Your task to perform on an android device: Go to sound settings Image 0: 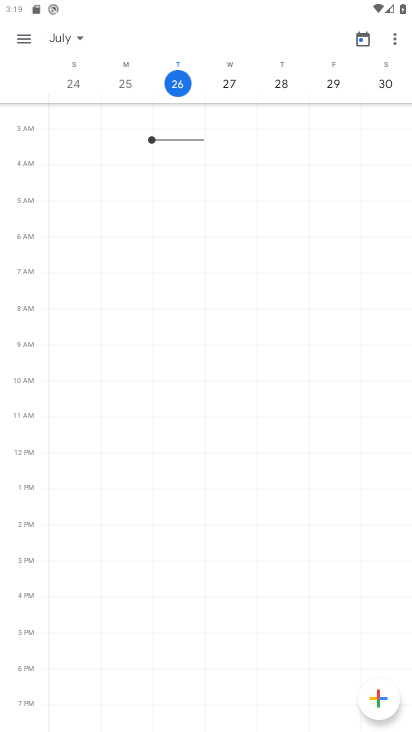
Step 0: press home button
Your task to perform on an android device: Go to sound settings Image 1: 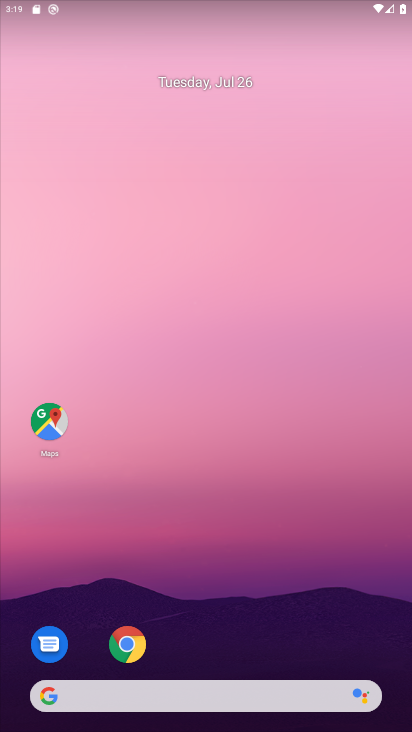
Step 1: drag from (206, 564) to (205, 309)
Your task to perform on an android device: Go to sound settings Image 2: 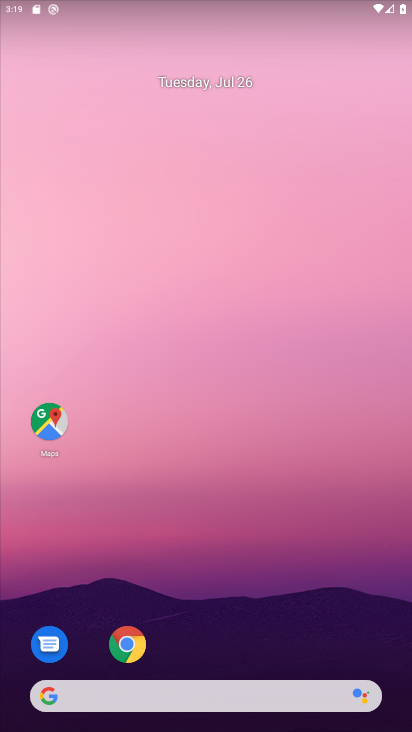
Step 2: drag from (170, 646) to (165, 471)
Your task to perform on an android device: Go to sound settings Image 3: 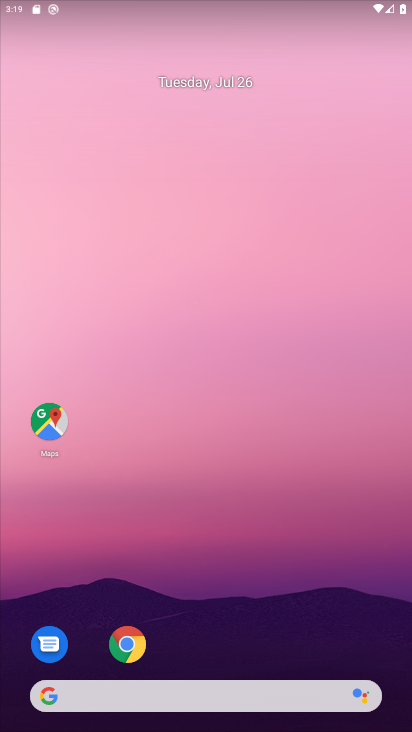
Step 3: drag from (254, 602) to (249, 42)
Your task to perform on an android device: Go to sound settings Image 4: 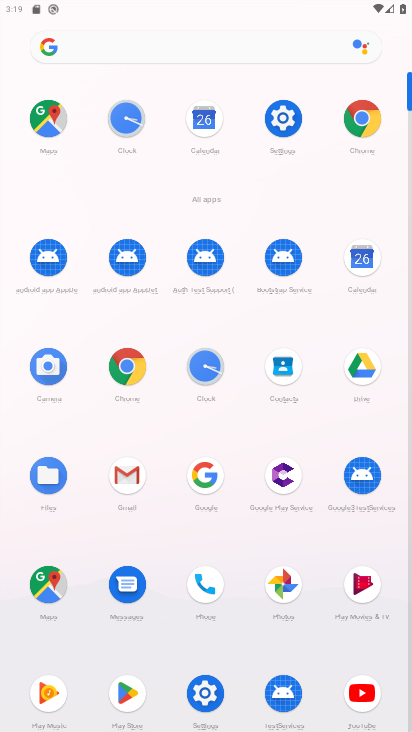
Step 4: click (273, 123)
Your task to perform on an android device: Go to sound settings Image 5: 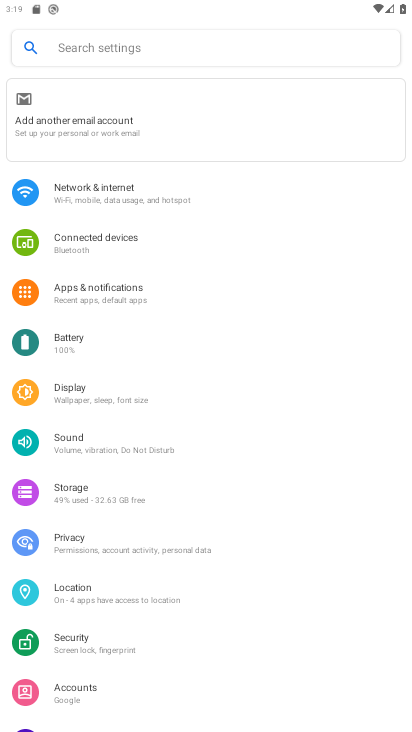
Step 5: click (86, 450)
Your task to perform on an android device: Go to sound settings Image 6: 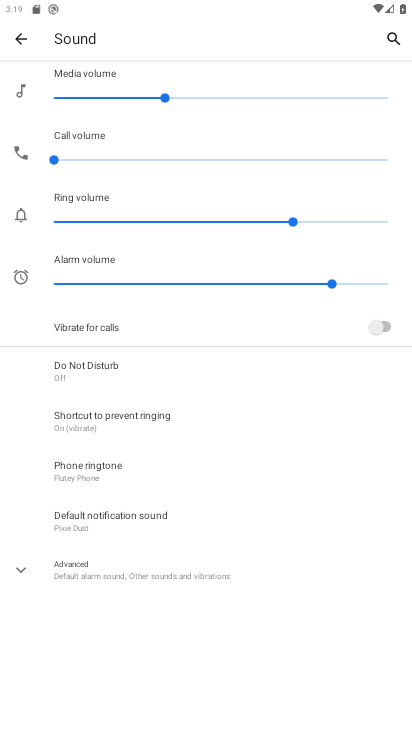
Step 6: task complete